Your task to perform on an android device: delete location history Image 0: 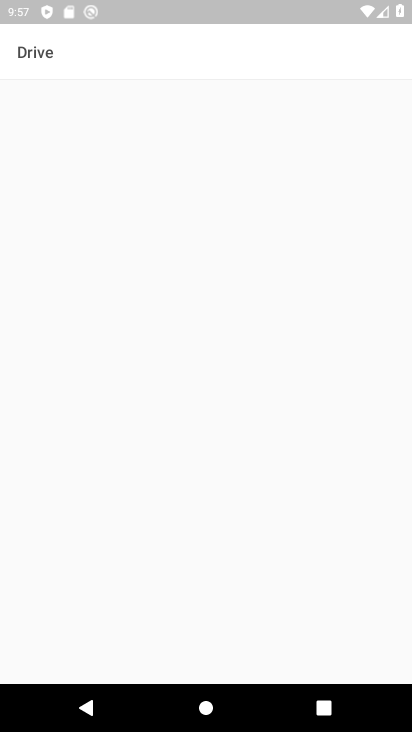
Step 0: press home button
Your task to perform on an android device: delete location history Image 1: 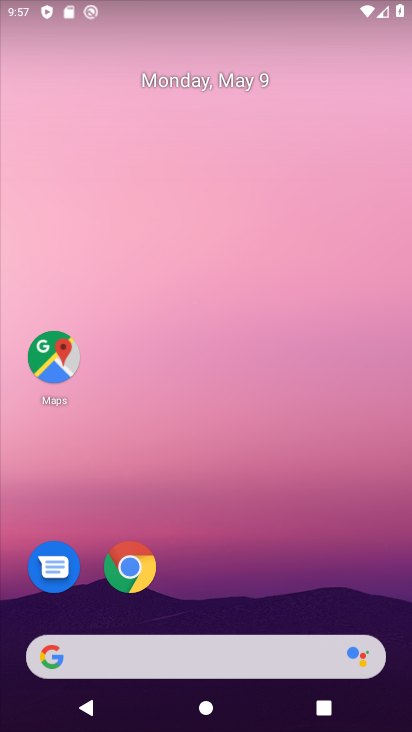
Step 1: drag from (162, 633) to (146, 219)
Your task to perform on an android device: delete location history Image 2: 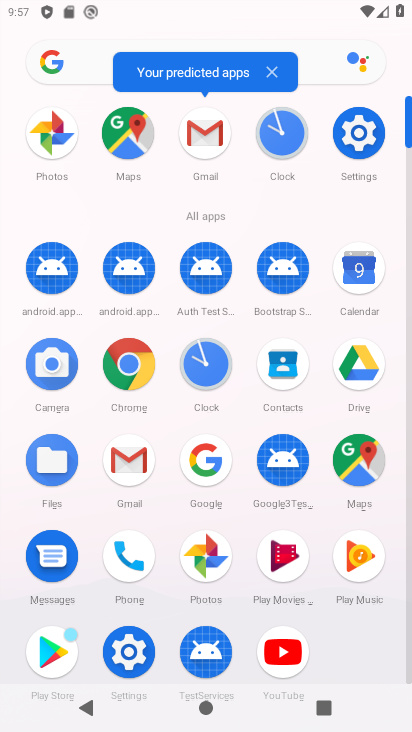
Step 2: click (359, 147)
Your task to perform on an android device: delete location history Image 3: 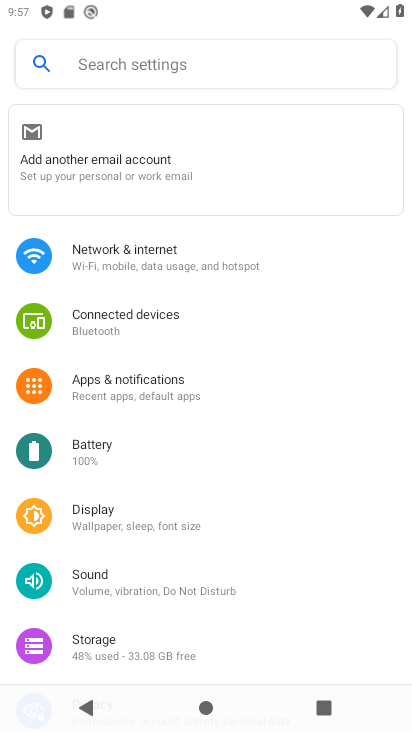
Step 3: drag from (119, 661) to (122, 264)
Your task to perform on an android device: delete location history Image 4: 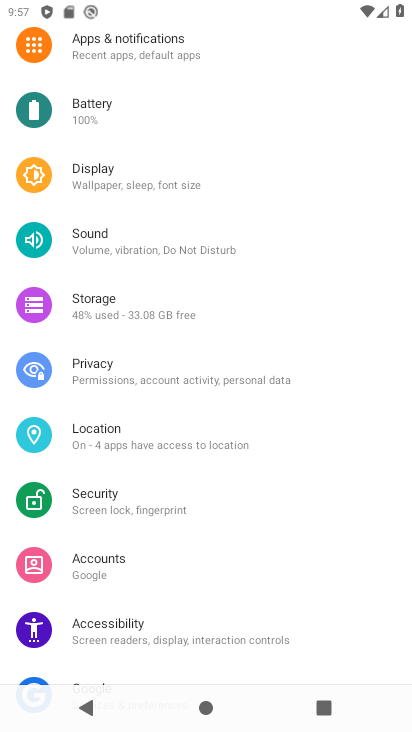
Step 4: click (97, 439)
Your task to perform on an android device: delete location history Image 5: 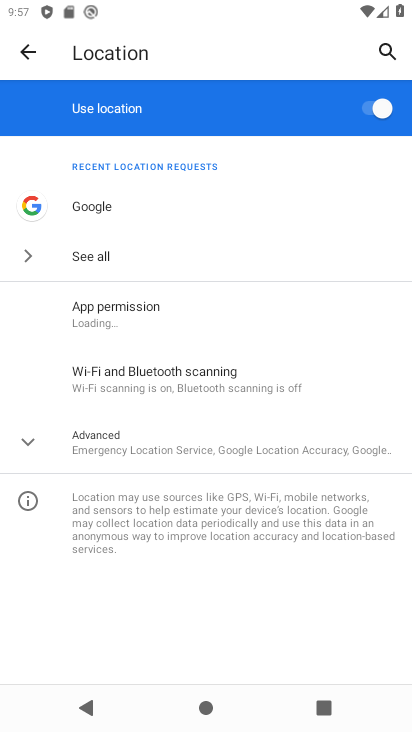
Step 5: click (118, 438)
Your task to perform on an android device: delete location history Image 6: 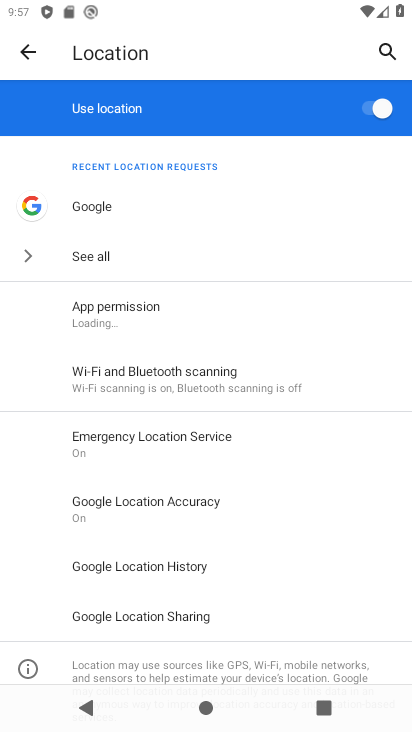
Step 6: click (120, 569)
Your task to perform on an android device: delete location history Image 7: 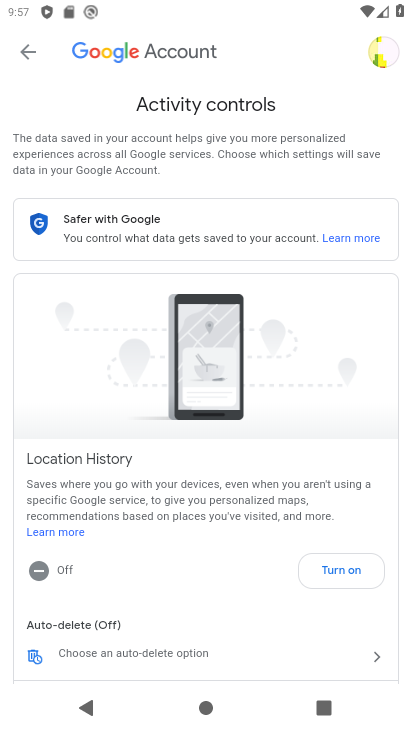
Step 7: drag from (189, 626) to (191, 345)
Your task to perform on an android device: delete location history Image 8: 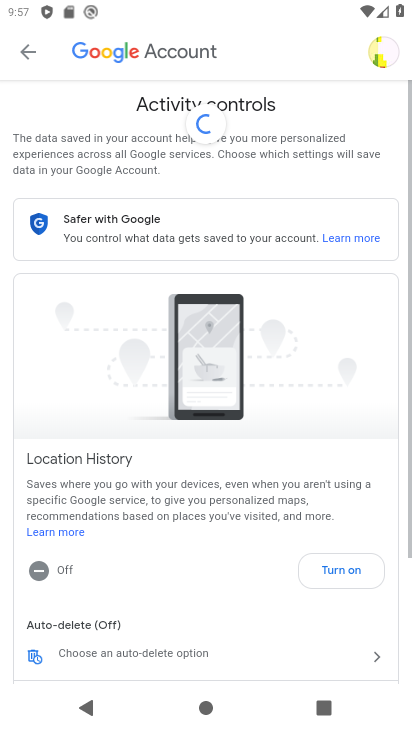
Step 8: click (113, 497)
Your task to perform on an android device: delete location history Image 9: 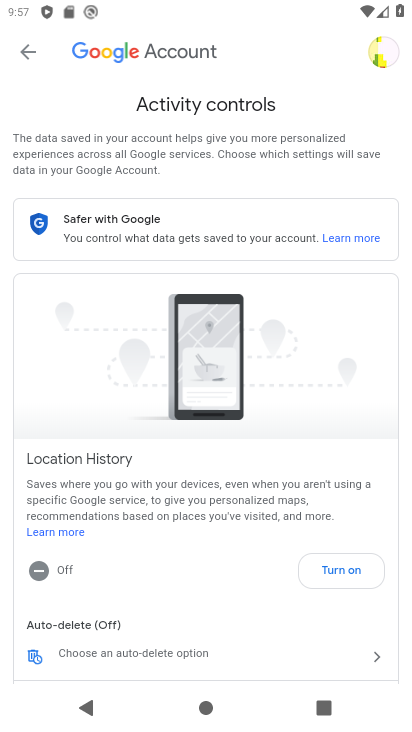
Step 9: click (119, 658)
Your task to perform on an android device: delete location history Image 10: 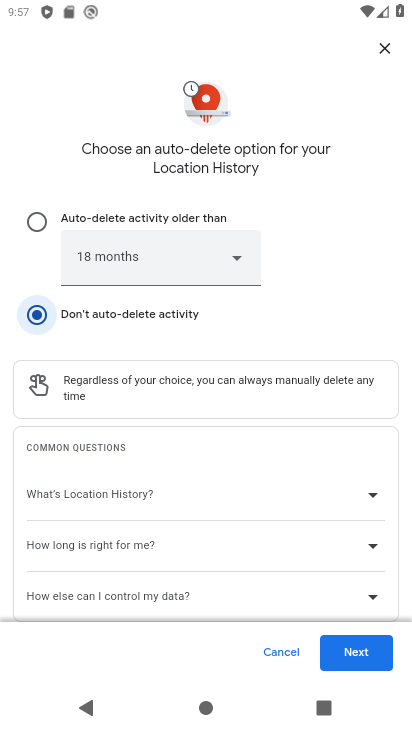
Step 10: click (357, 649)
Your task to perform on an android device: delete location history Image 11: 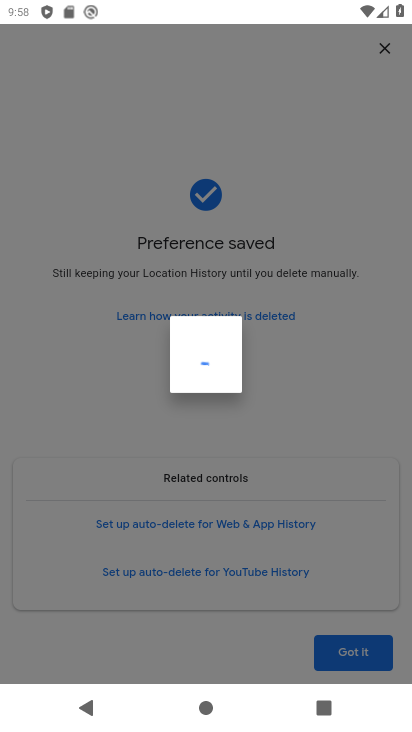
Step 11: click (352, 658)
Your task to perform on an android device: delete location history Image 12: 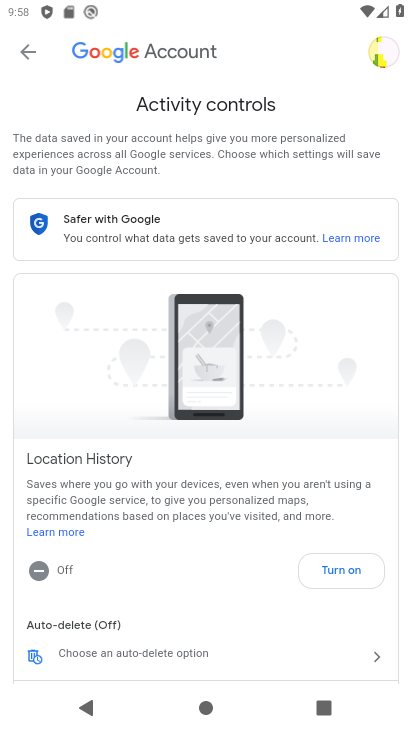
Step 12: task complete